Your task to perform on an android device: set the timer Image 0: 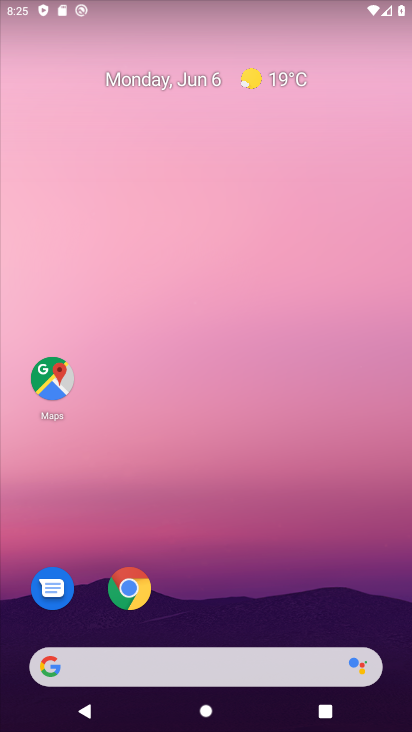
Step 0: drag from (239, 662) to (242, 70)
Your task to perform on an android device: set the timer Image 1: 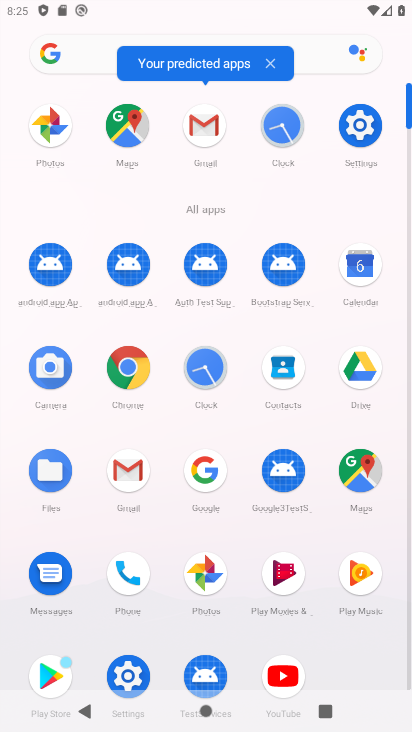
Step 1: click (212, 378)
Your task to perform on an android device: set the timer Image 2: 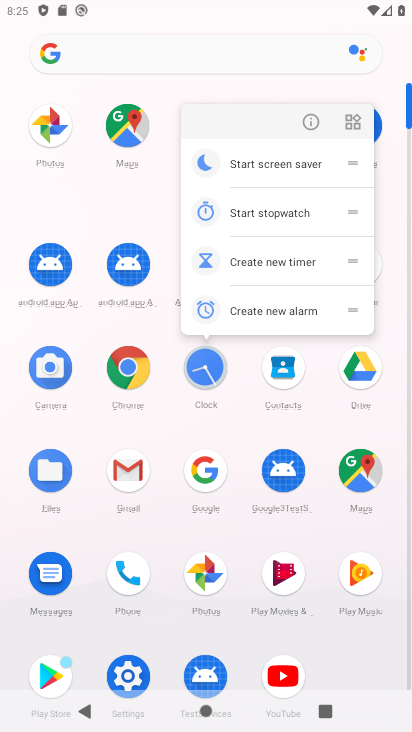
Step 2: click (215, 366)
Your task to perform on an android device: set the timer Image 3: 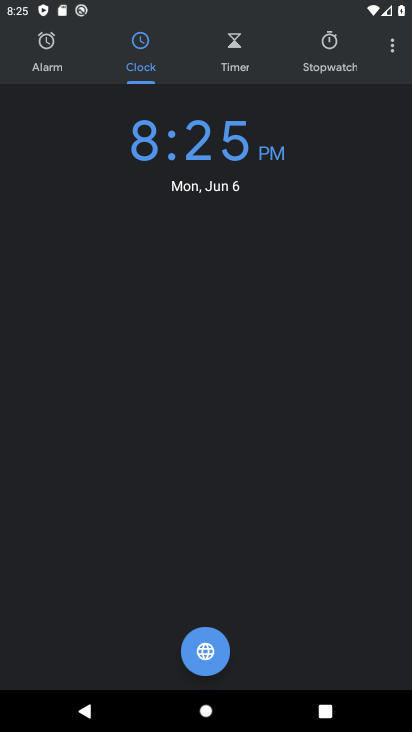
Step 3: click (247, 57)
Your task to perform on an android device: set the timer Image 4: 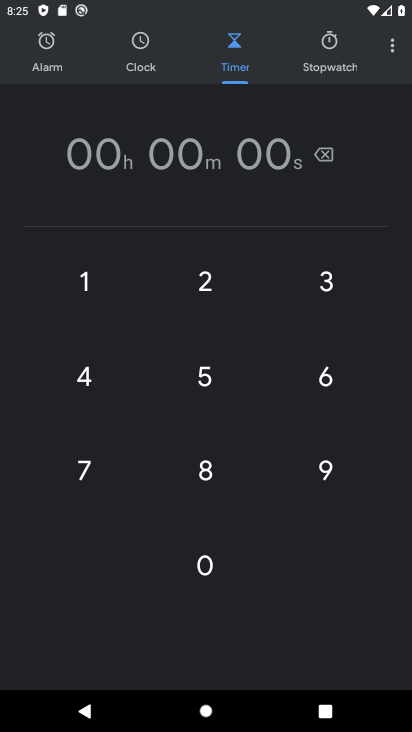
Step 4: click (186, 390)
Your task to perform on an android device: set the timer Image 5: 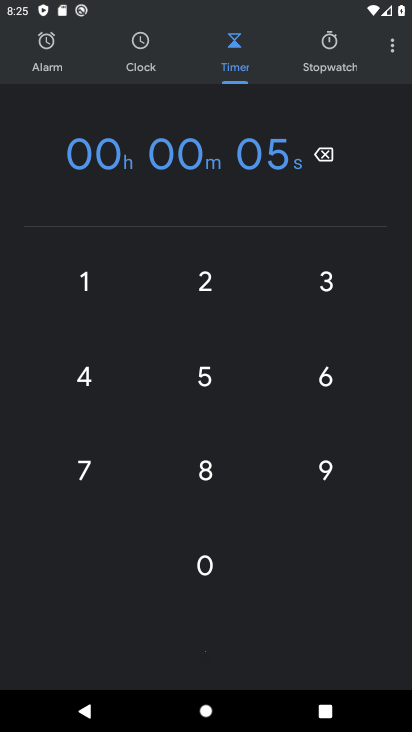
Step 5: click (331, 382)
Your task to perform on an android device: set the timer Image 6: 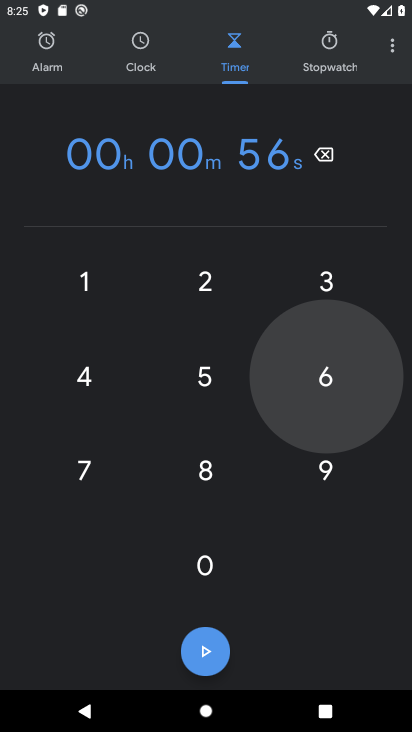
Step 6: click (225, 296)
Your task to perform on an android device: set the timer Image 7: 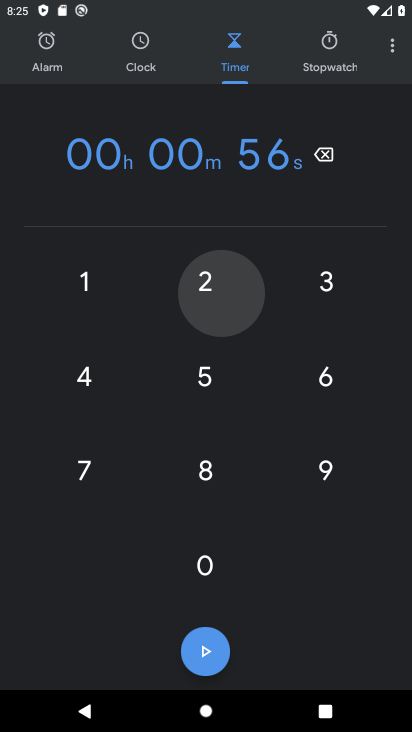
Step 7: click (322, 283)
Your task to perform on an android device: set the timer Image 8: 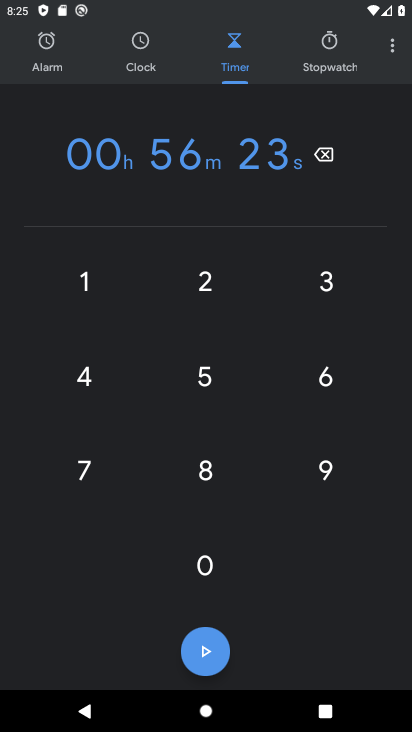
Step 8: click (106, 281)
Your task to perform on an android device: set the timer Image 9: 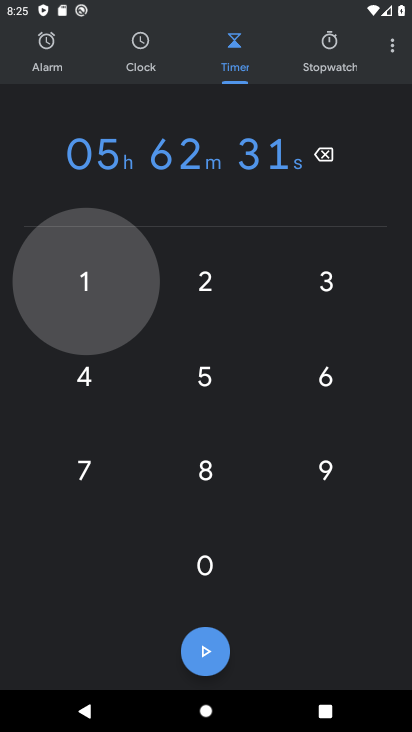
Step 9: click (86, 361)
Your task to perform on an android device: set the timer Image 10: 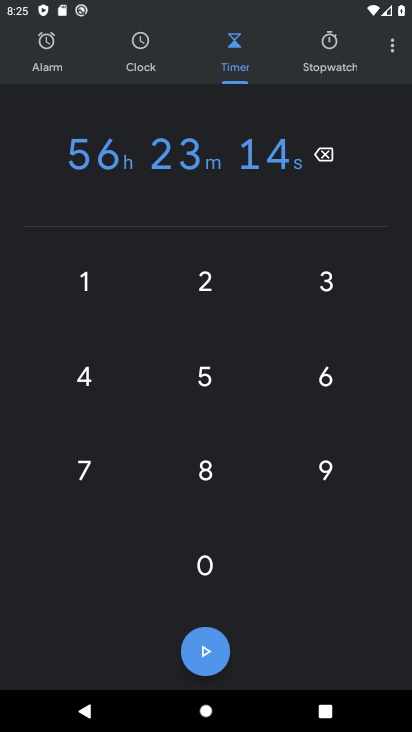
Step 10: task complete